Your task to perform on an android device: Open accessibility settings Image 0: 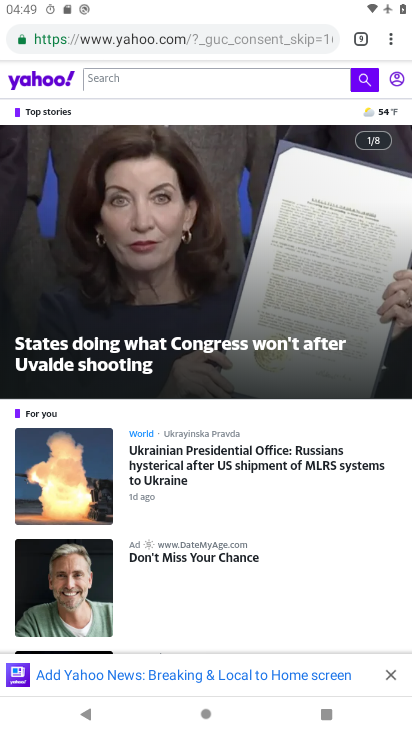
Step 0: press home button
Your task to perform on an android device: Open accessibility settings Image 1: 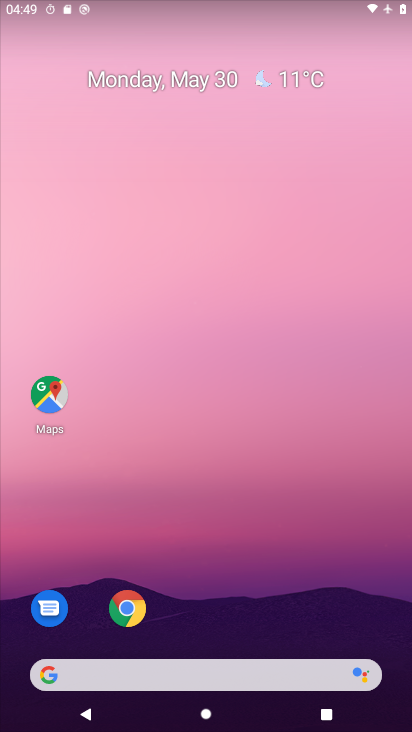
Step 1: drag from (291, 558) to (179, 0)
Your task to perform on an android device: Open accessibility settings Image 2: 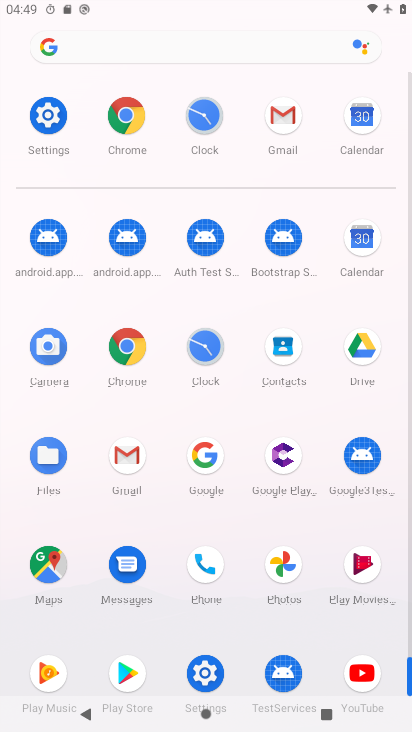
Step 2: click (58, 120)
Your task to perform on an android device: Open accessibility settings Image 3: 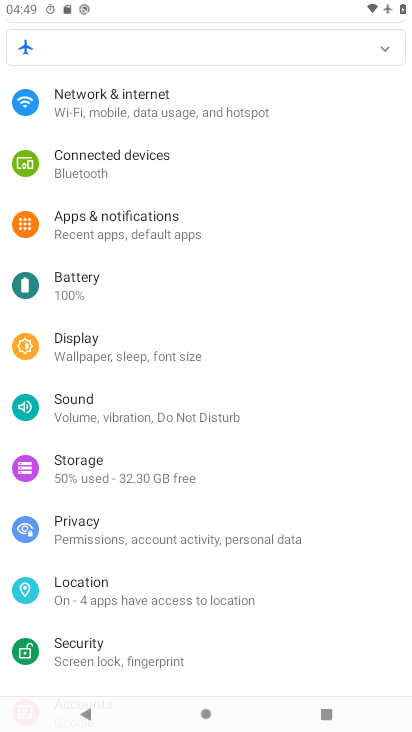
Step 3: drag from (199, 585) to (212, 159)
Your task to perform on an android device: Open accessibility settings Image 4: 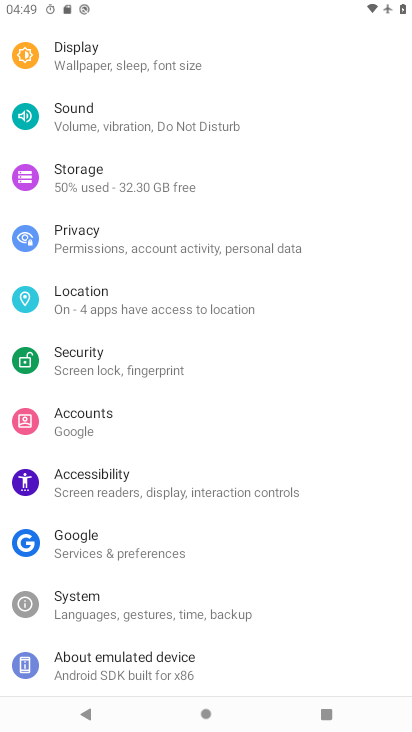
Step 4: click (153, 479)
Your task to perform on an android device: Open accessibility settings Image 5: 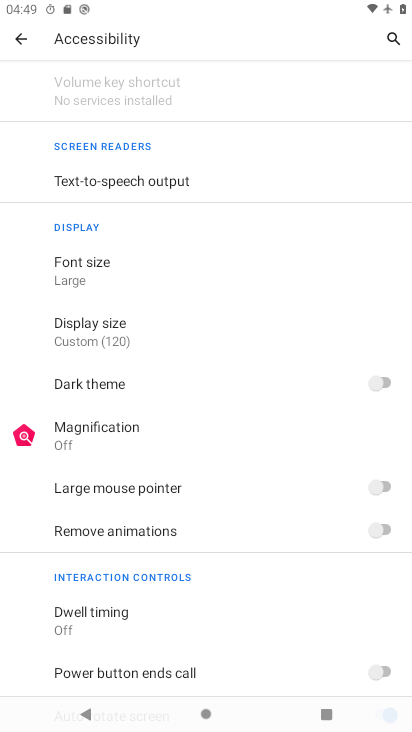
Step 5: task complete